Your task to perform on an android device: Open Google Maps and go to "Timeline" Image 0: 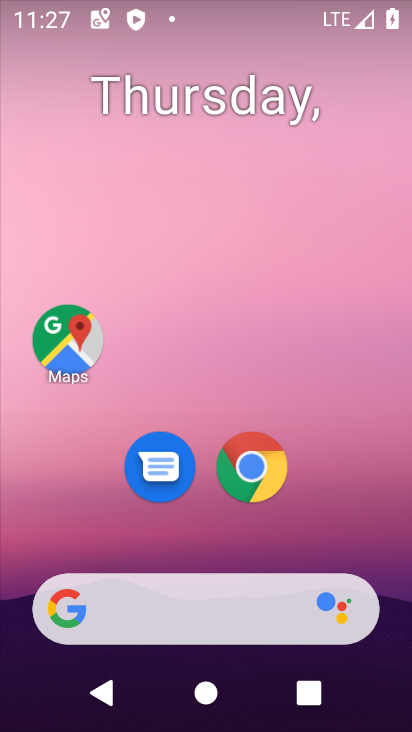
Step 0: click (53, 339)
Your task to perform on an android device: Open Google Maps and go to "Timeline" Image 1: 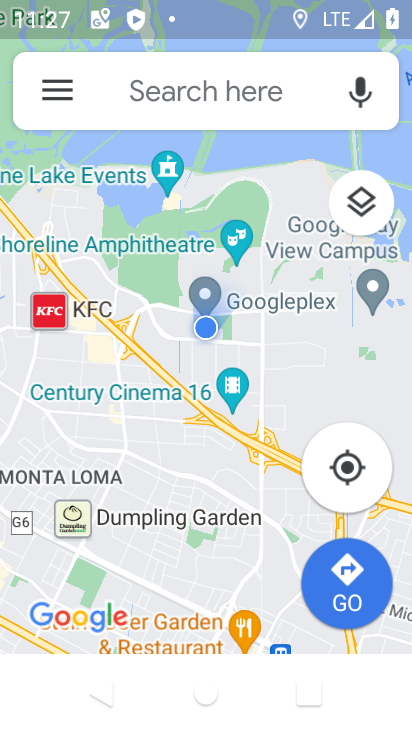
Step 1: click (55, 76)
Your task to perform on an android device: Open Google Maps and go to "Timeline" Image 2: 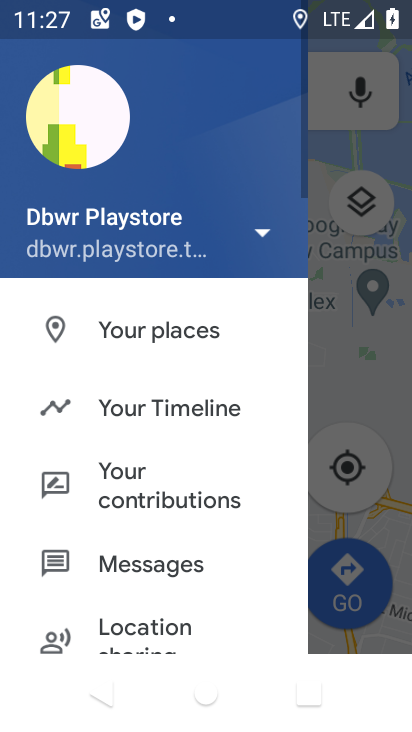
Step 2: click (172, 392)
Your task to perform on an android device: Open Google Maps and go to "Timeline" Image 3: 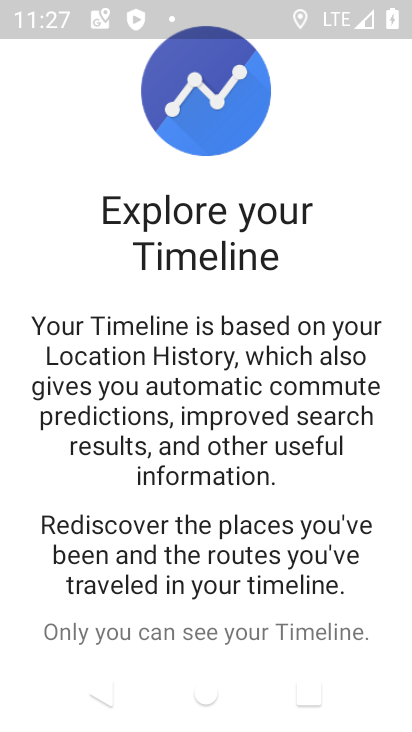
Step 3: drag from (168, 563) to (287, 84)
Your task to perform on an android device: Open Google Maps and go to "Timeline" Image 4: 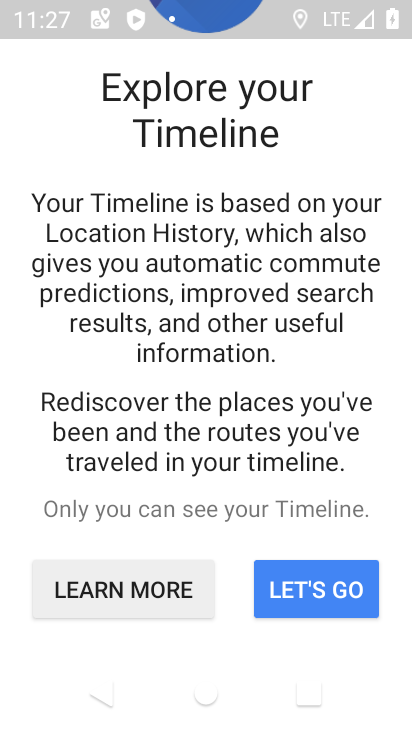
Step 4: click (304, 577)
Your task to perform on an android device: Open Google Maps and go to "Timeline" Image 5: 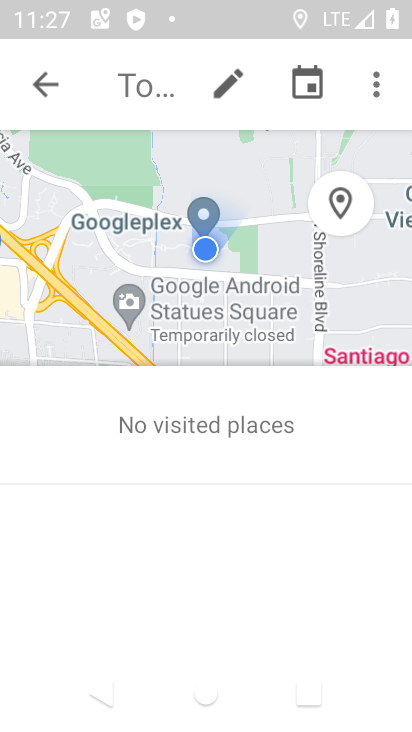
Step 5: task complete